Your task to perform on an android device: install app "Messenger Lite" Image 0: 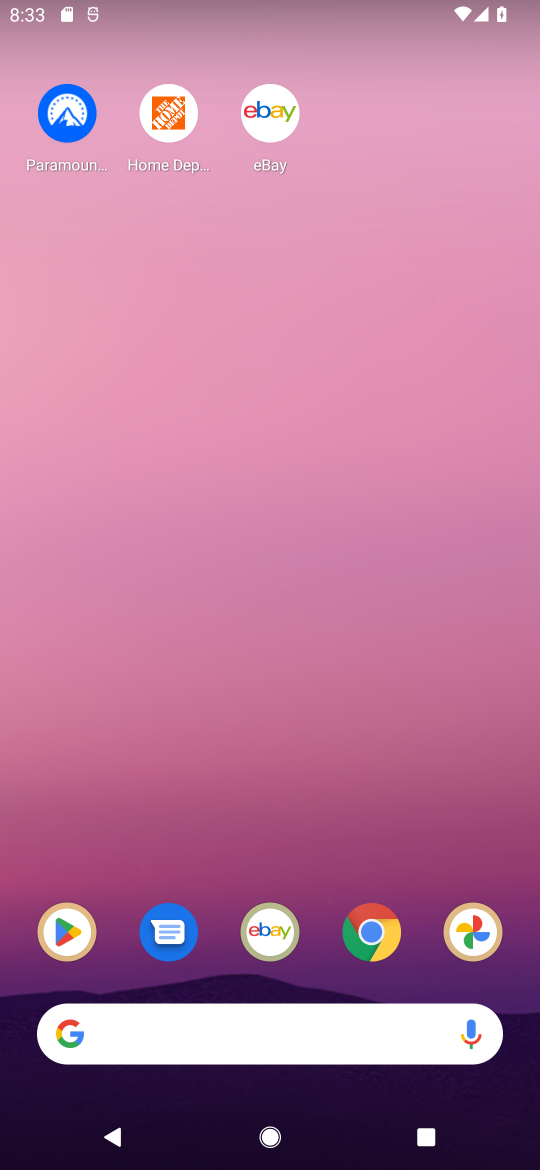
Step 0: click (63, 922)
Your task to perform on an android device: install app "Messenger Lite" Image 1: 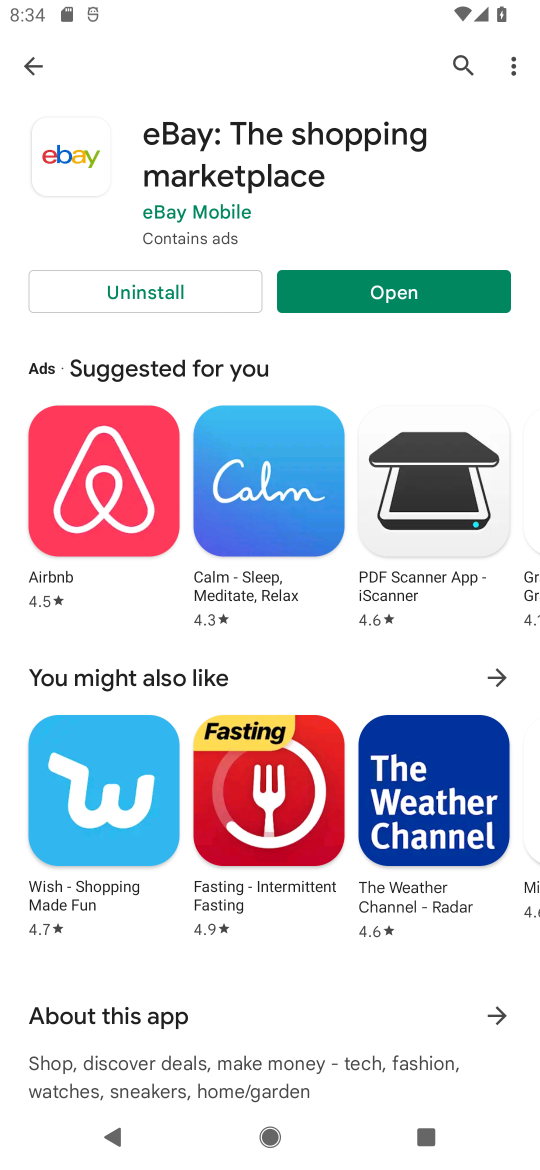
Step 1: click (454, 59)
Your task to perform on an android device: install app "Messenger Lite" Image 2: 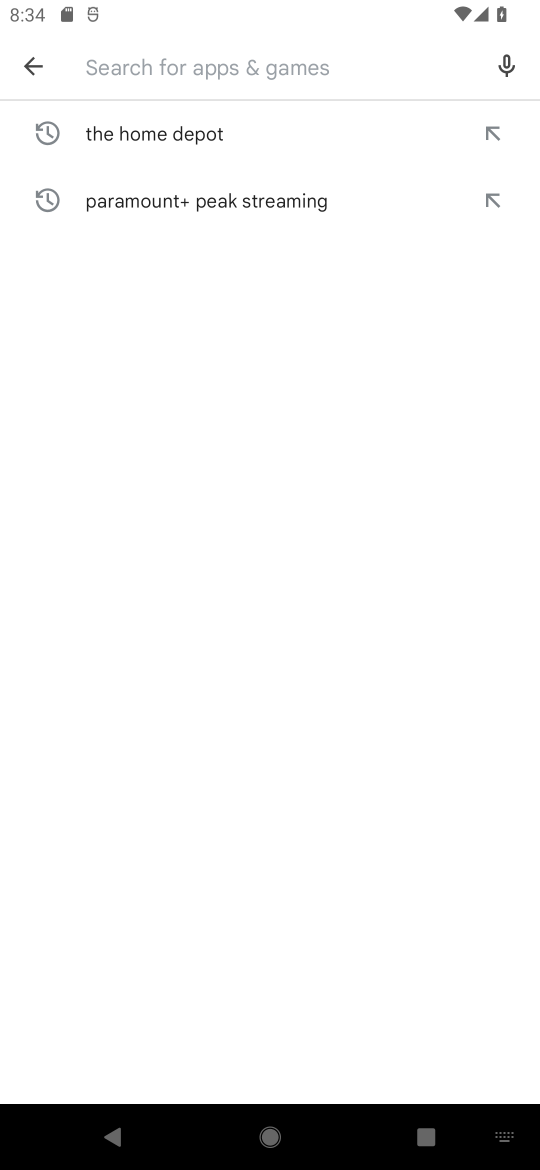
Step 2: type "messenger lite"
Your task to perform on an android device: install app "Messenger Lite" Image 3: 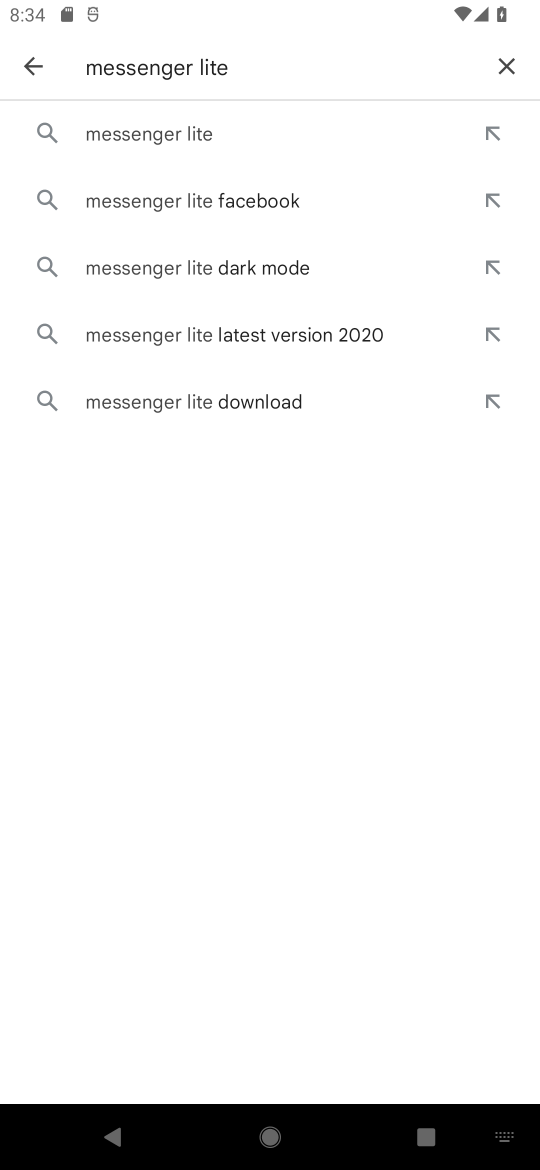
Step 3: click (230, 125)
Your task to perform on an android device: install app "Messenger Lite" Image 4: 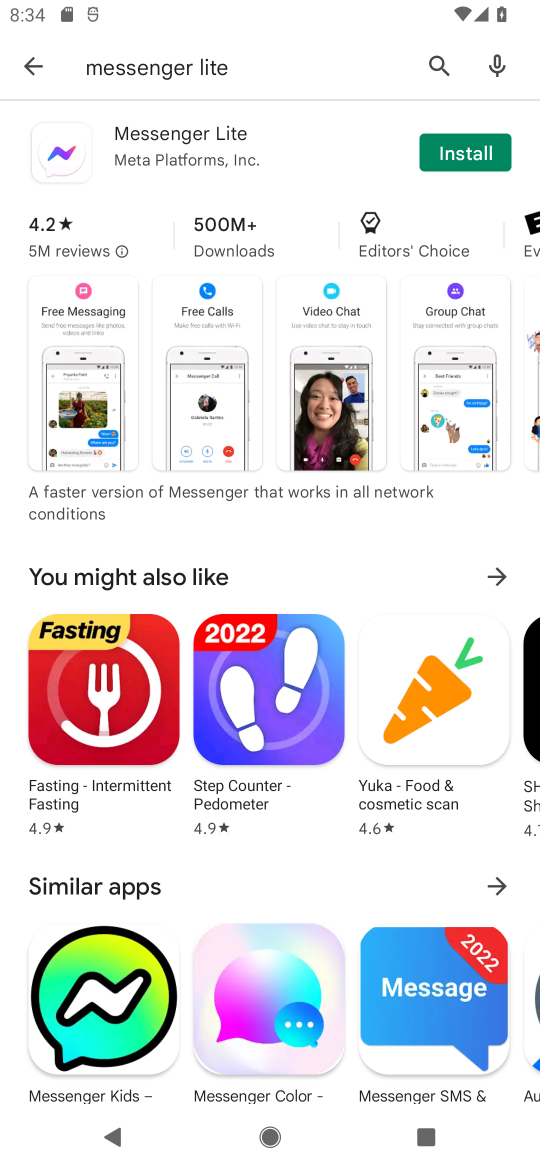
Step 4: click (238, 128)
Your task to perform on an android device: install app "Messenger Lite" Image 5: 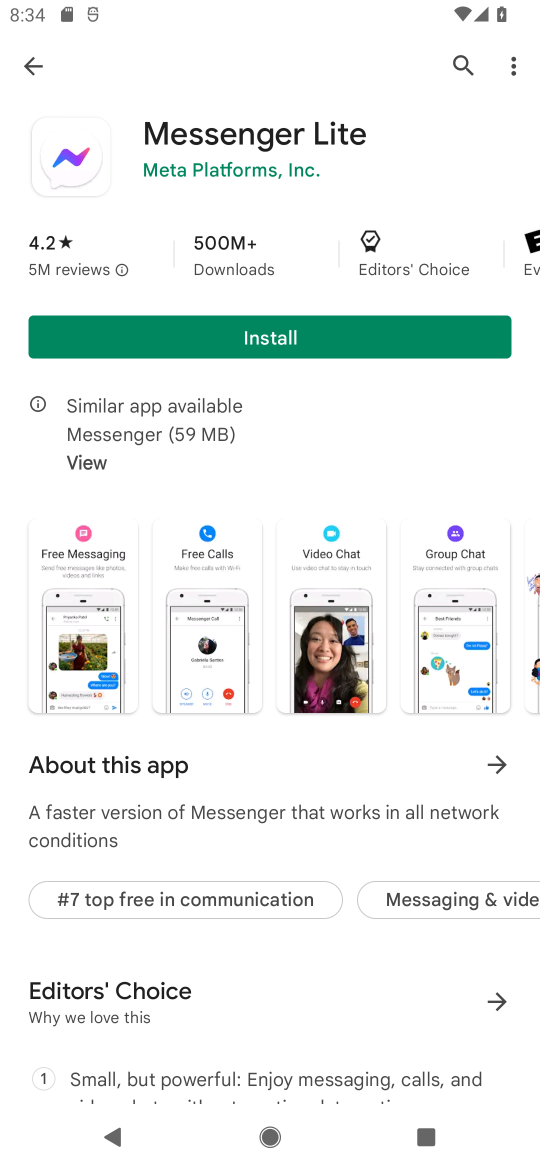
Step 5: click (365, 327)
Your task to perform on an android device: install app "Messenger Lite" Image 6: 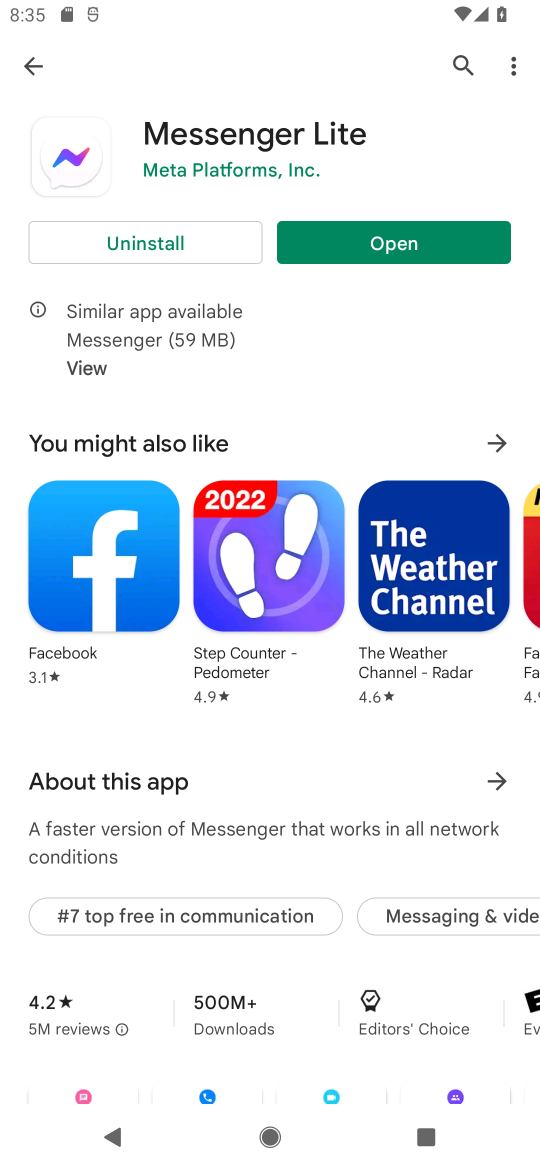
Step 6: task complete